Your task to perform on an android device: find photos in the google photos app Image 0: 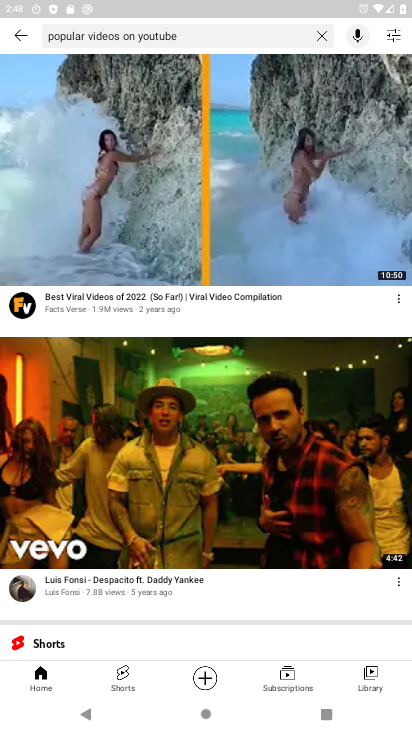
Step 0: press home button
Your task to perform on an android device: find photos in the google photos app Image 1: 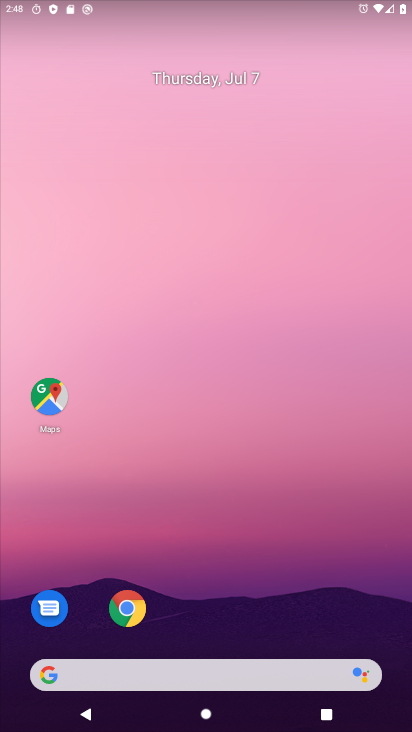
Step 1: drag from (253, 697) to (240, 161)
Your task to perform on an android device: find photos in the google photos app Image 2: 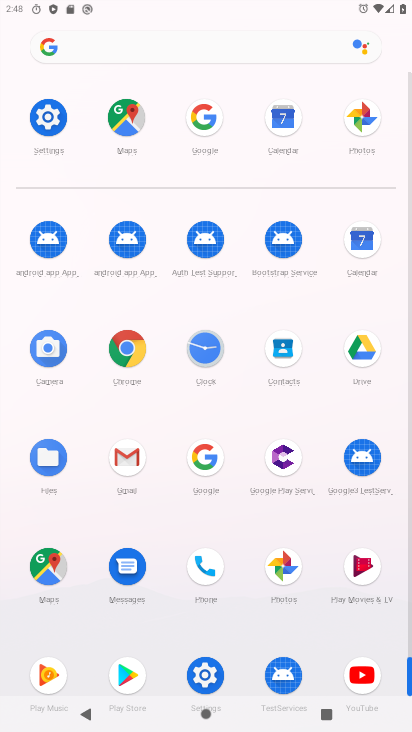
Step 2: click (284, 558)
Your task to perform on an android device: find photos in the google photos app Image 3: 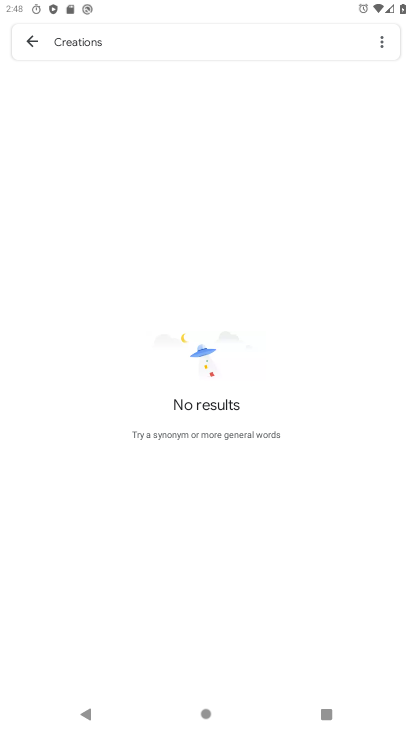
Step 3: click (32, 39)
Your task to perform on an android device: find photos in the google photos app Image 4: 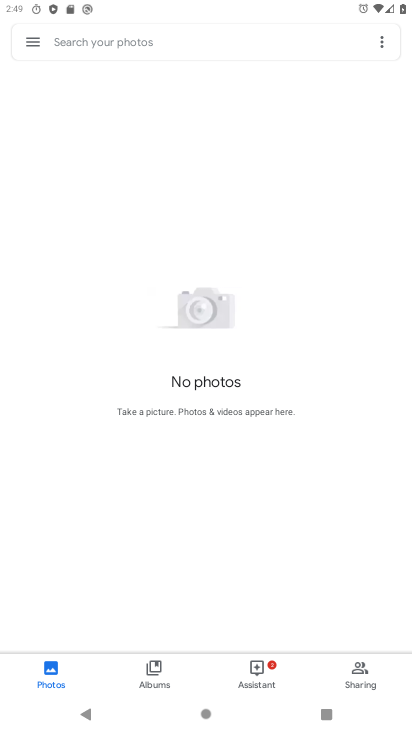
Step 4: task complete